Your task to perform on an android device: Turn off the flashlight Image 0: 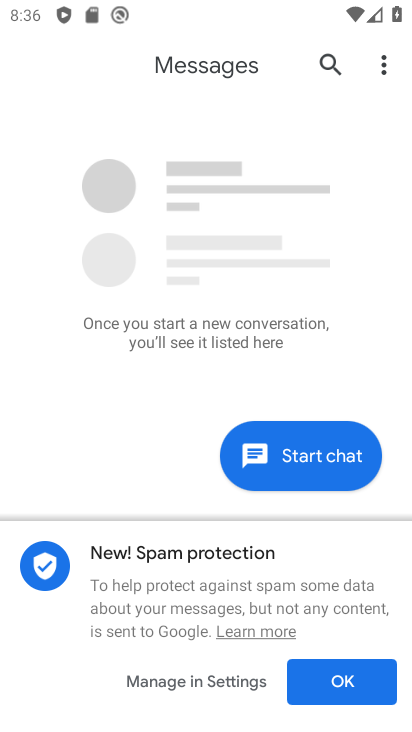
Step 0: press home button
Your task to perform on an android device: Turn off the flashlight Image 1: 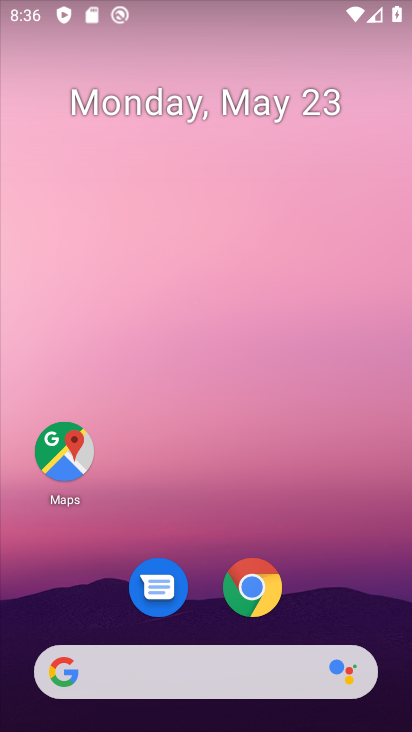
Step 1: drag from (337, 609) to (327, 85)
Your task to perform on an android device: Turn off the flashlight Image 2: 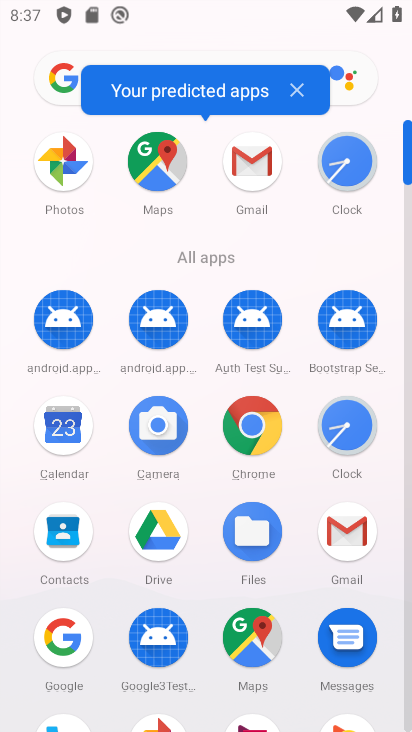
Step 2: drag from (201, 552) to (219, 270)
Your task to perform on an android device: Turn off the flashlight Image 3: 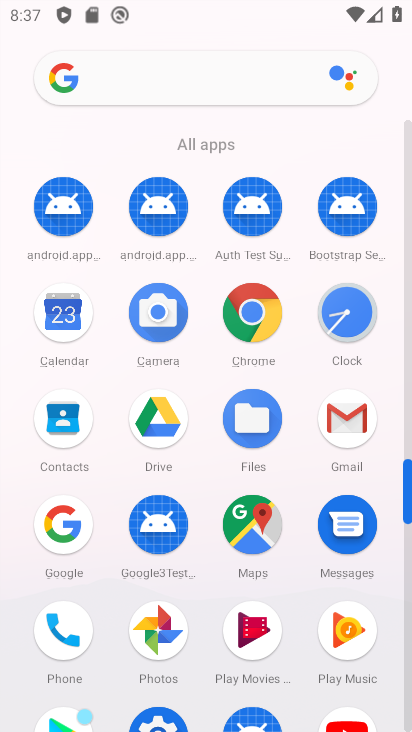
Step 3: drag from (205, 624) to (119, 271)
Your task to perform on an android device: Turn off the flashlight Image 4: 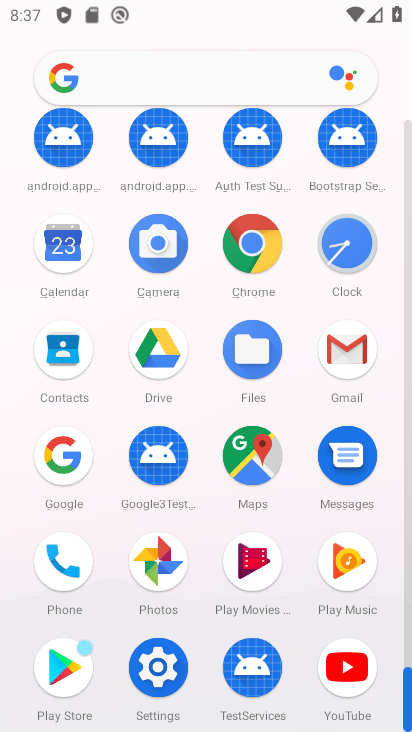
Step 4: click (165, 663)
Your task to perform on an android device: Turn off the flashlight Image 5: 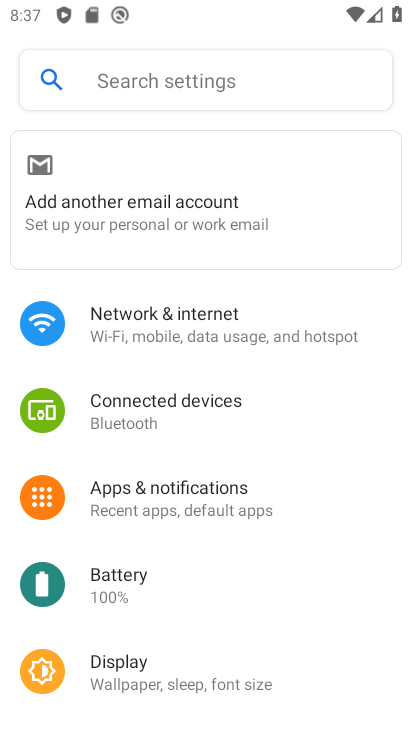
Step 5: click (189, 499)
Your task to perform on an android device: Turn off the flashlight Image 6: 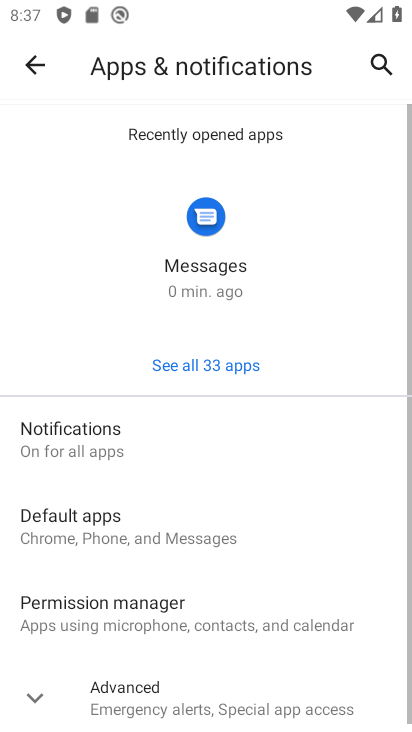
Step 6: click (249, 683)
Your task to perform on an android device: Turn off the flashlight Image 7: 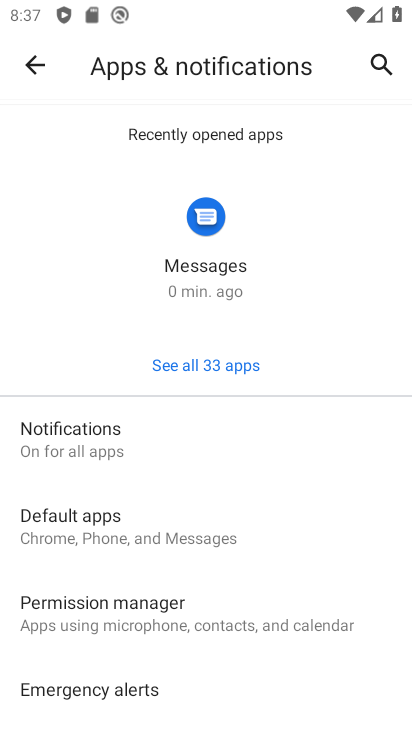
Step 7: drag from (249, 683) to (257, 190)
Your task to perform on an android device: Turn off the flashlight Image 8: 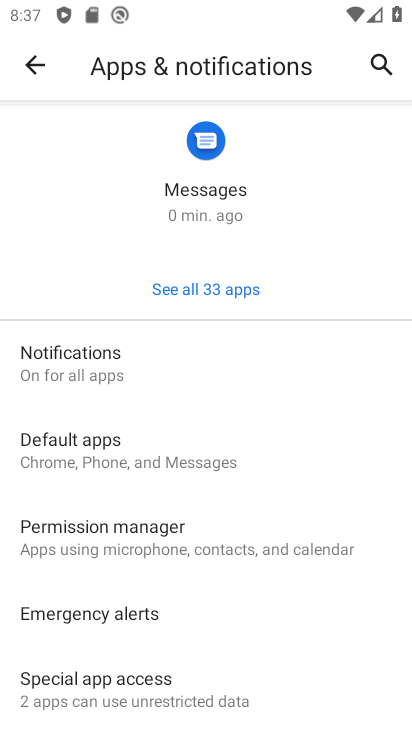
Step 8: click (149, 694)
Your task to perform on an android device: Turn off the flashlight Image 9: 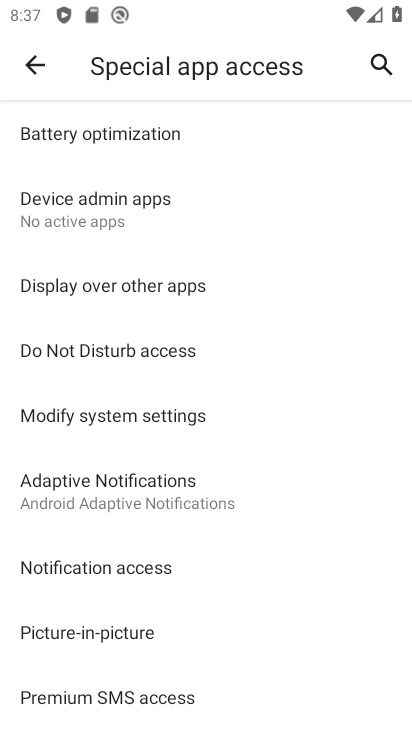
Step 9: task complete